Your task to perform on an android device: toggle show notifications on the lock screen Image 0: 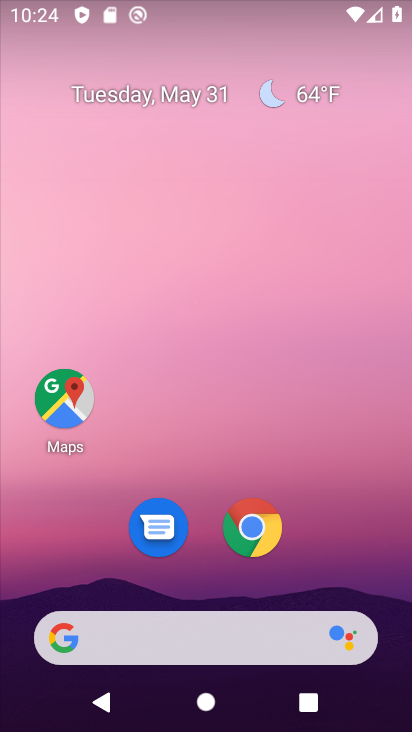
Step 0: drag from (258, 664) to (305, 13)
Your task to perform on an android device: toggle show notifications on the lock screen Image 1: 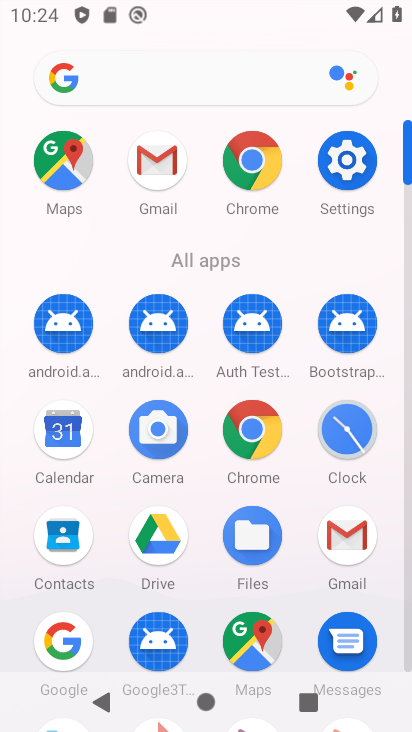
Step 1: click (354, 162)
Your task to perform on an android device: toggle show notifications on the lock screen Image 2: 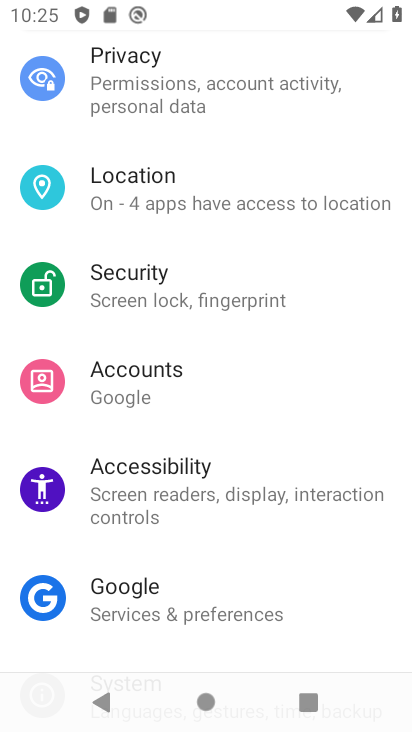
Step 2: drag from (250, 135) to (215, 727)
Your task to perform on an android device: toggle show notifications on the lock screen Image 3: 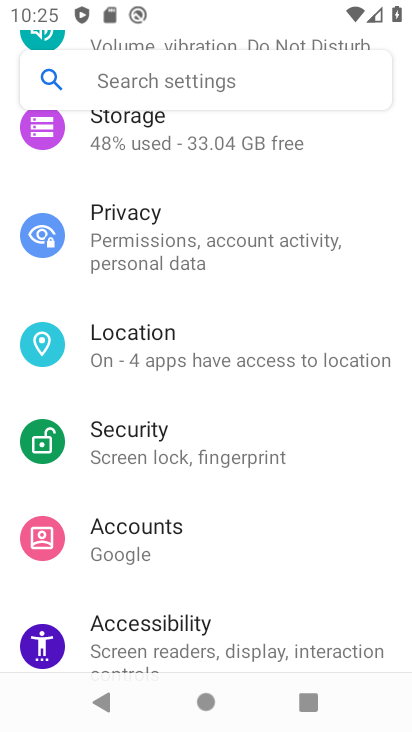
Step 3: drag from (332, 252) to (319, 717)
Your task to perform on an android device: toggle show notifications on the lock screen Image 4: 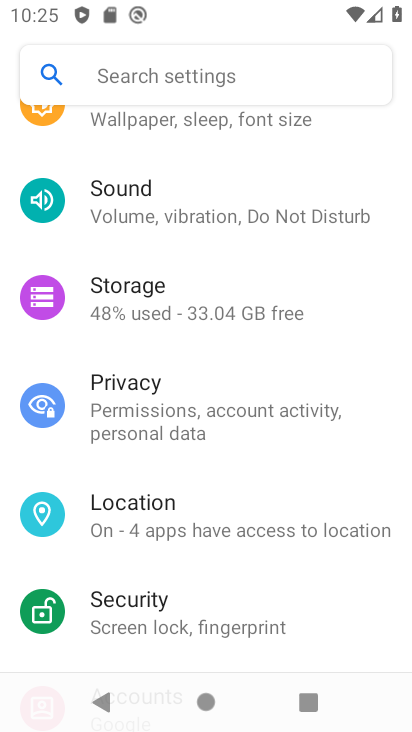
Step 4: drag from (301, 148) to (322, 725)
Your task to perform on an android device: toggle show notifications on the lock screen Image 5: 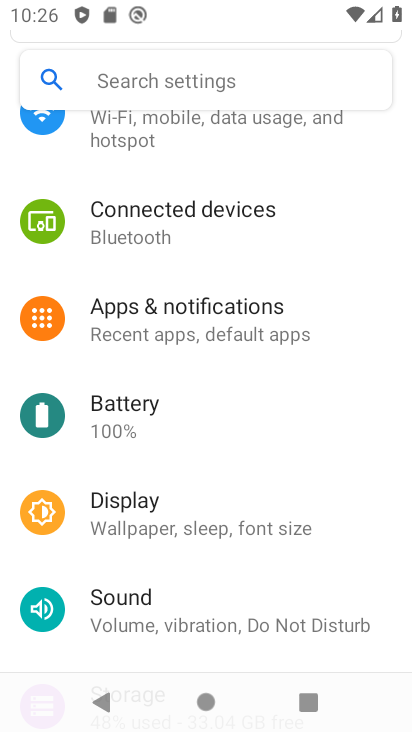
Step 5: click (209, 312)
Your task to perform on an android device: toggle show notifications on the lock screen Image 6: 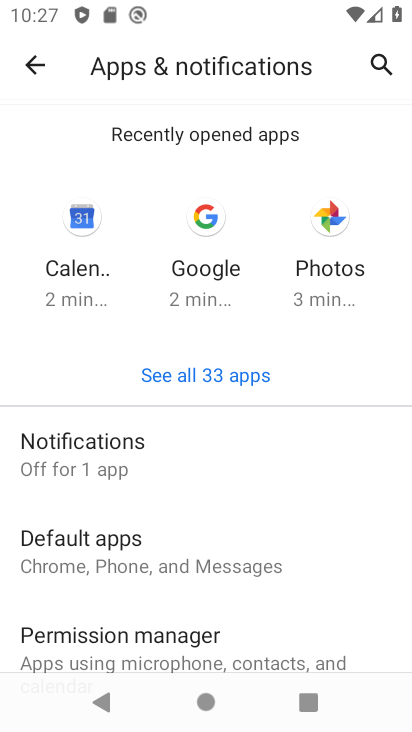
Step 6: click (174, 457)
Your task to perform on an android device: toggle show notifications on the lock screen Image 7: 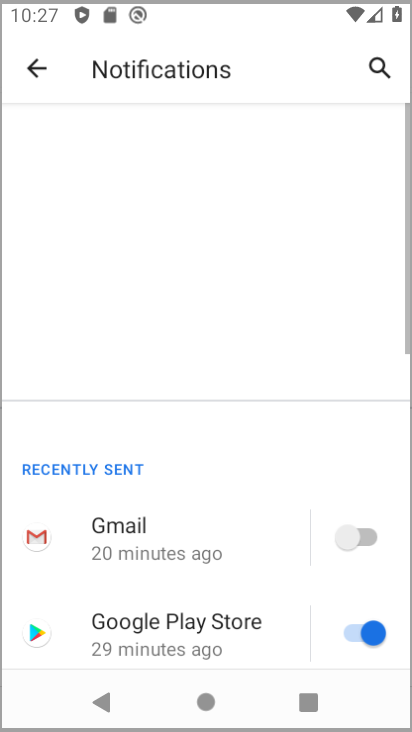
Step 7: drag from (209, 635) to (161, 7)
Your task to perform on an android device: toggle show notifications on the lock screen Image 8: 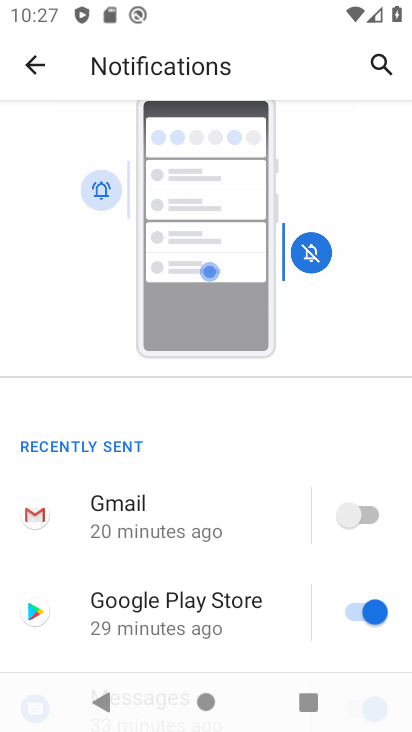
Step 8: drag from (227, 634) to (294, 32)
Your task to perform on an android device: toggle show notifications on the lock screen Image 9: 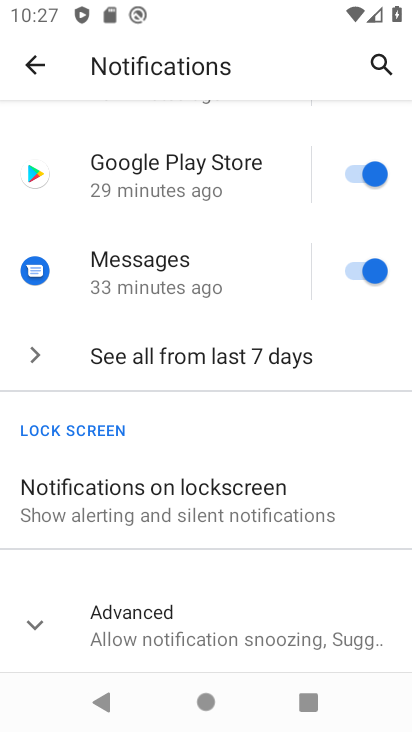
Step 9: click (205, 507)
Your task to perform on an android device: toggle show notifications on the lock screen Image 10: 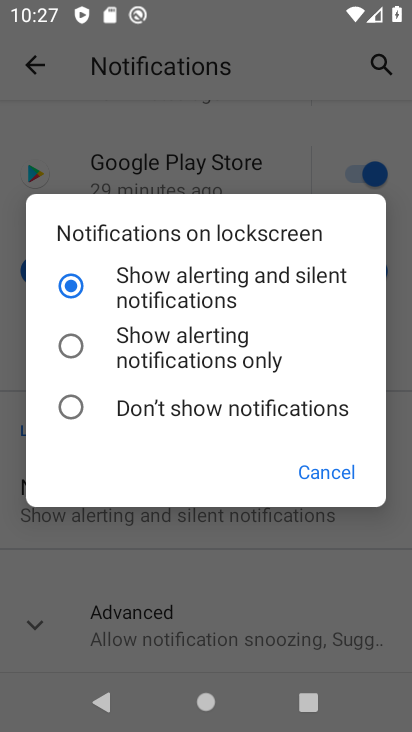
Step 10: click (169, 413)
Your task to perform on an android device: toggle show notifications on the lock screen Image 11: 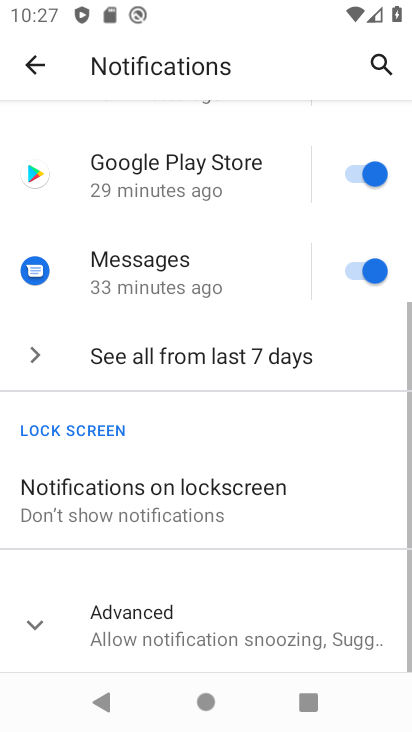
Step 11: task complete